Your task to perform on an android device: View the shopping cart on amazon. Search for macbook pro 15 inch on amazon, select the first entry, add it to the cart, then select checkout. Image 0: 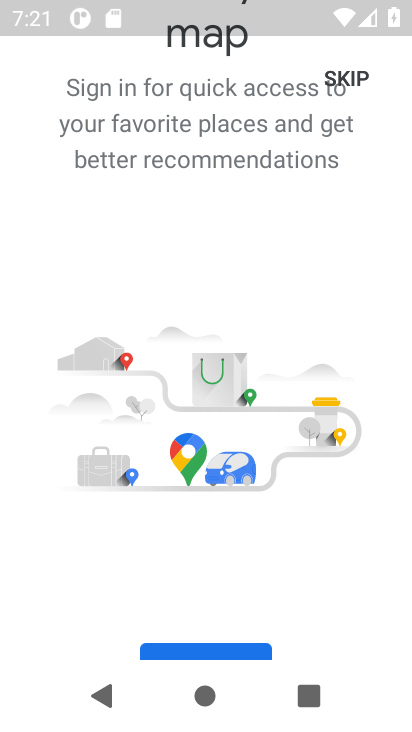
Step 0: press home button
Your task to perform on an android device: View the shopping cart on amazon. Search for macbook pro 15 inch on amazon, select the first entry, add it to the cart, then select checkout. Image 1: 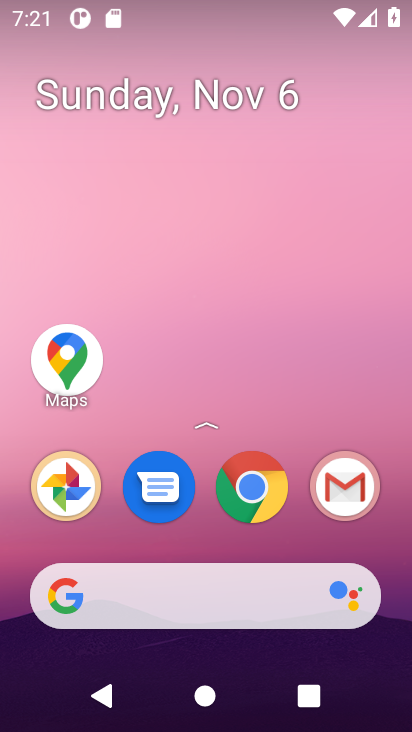
Step 1: click (258, 496)
Your task to perform on an android device: View the shopping cart on amazon. Search for macbook pro 15 inch on amazon, select the first entry, add it to the cart, then select checkout. Image 2: 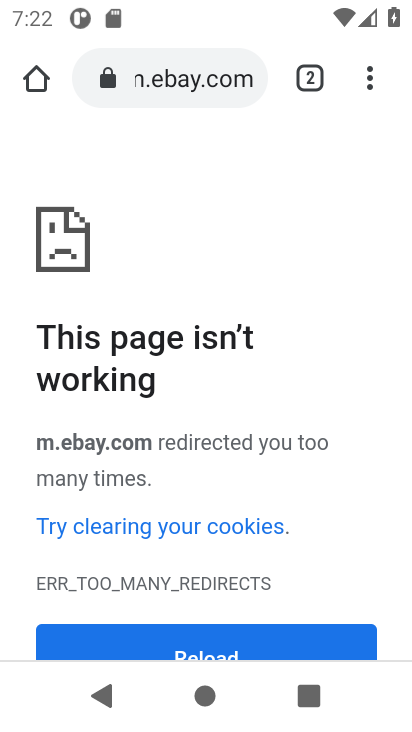
Step 2: click (127, 93)
Your task to perform on an android device: View the shopping cart on amazon. Search for macbook pro 15 inch on amazon, select the first entry, add it to the cart, then select checkout. Image 3: 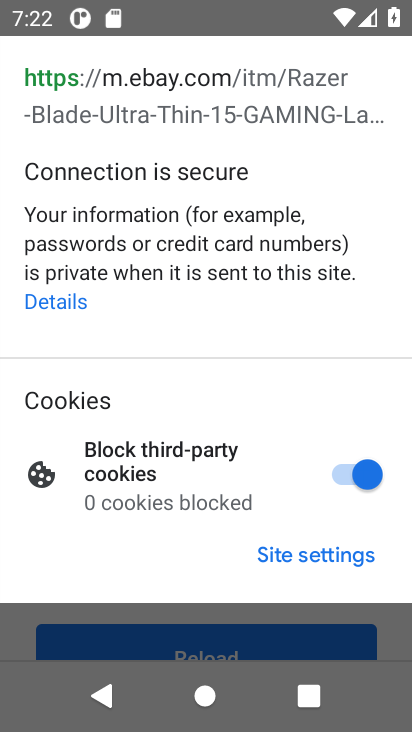
Step 3: press back button
Your task to perform on an android device: View the shopping cart on amazon. Search for macbook pro 15 inch on amazon, select the first entry, add it to the cart, then select checkout. Image 4: 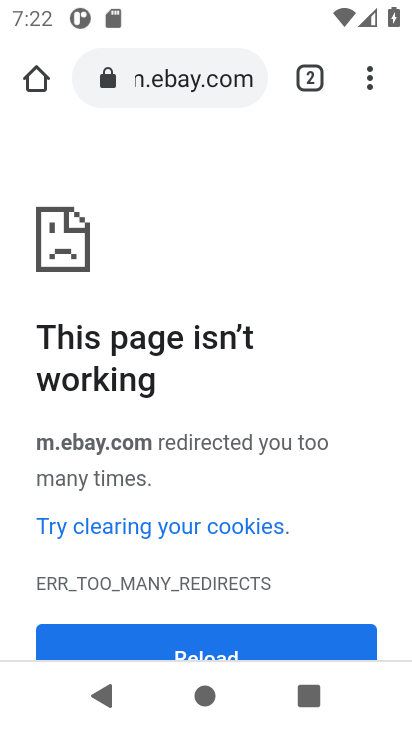
Step 4: click (228, 84)
Your task to perform on an android device: View the shopping cart on amazon. Search for macbook pro 15 inch on amazon, select the first entry, add it to the cart, then select checkout. Image 5: 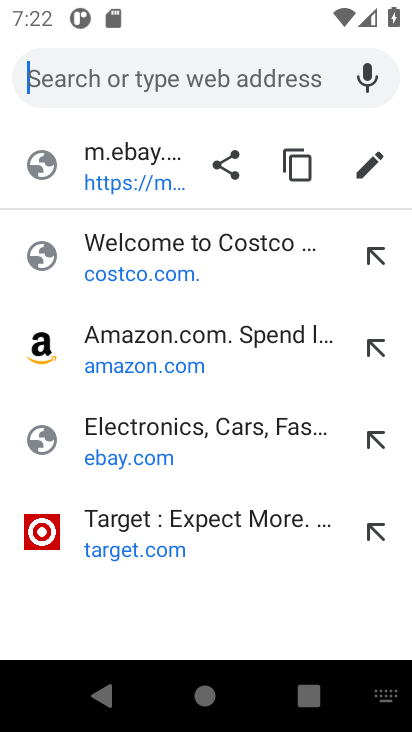
Step 5: type "amazon"
Your task to perform on an android device: View the shopping cart on amazon. Search for macbook pro 15 inch on amazon, select the first entry, add it to the cart, then select checkout. Image 6: 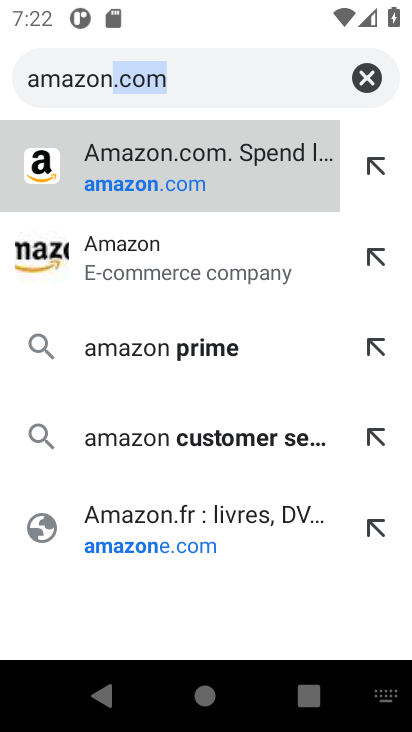
Step 6: click (120, 189)
Your task to perform on an android device: View the shopping cart on amazon. Search for macbook pro 15 inch on amazon, select the first entry, add it to the cart, then select checkout. Image 7: 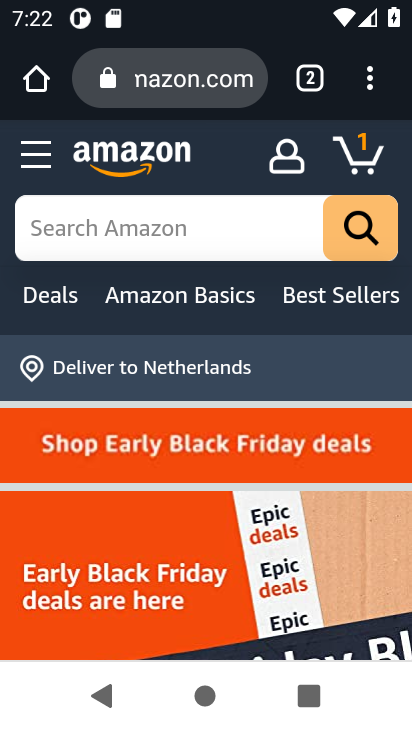
Step 7: click (146, 219)
Your task to perform on an android device: View the shopping cart on amazon. Search for macbook pro 15 inch on amazon, select the first entry, add it to the cart, then select checkout. Image 8: 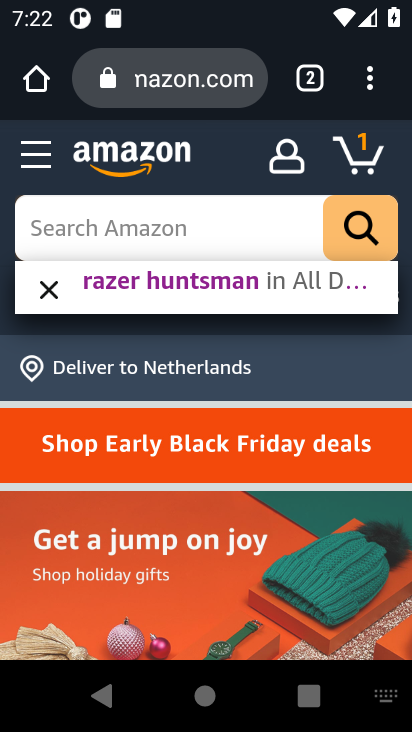
Step 8: click (364, 155)
Your task to perform on an android device: View the shopping cart on amazon. Search for macbook pro 15 inch on amazon, select the first entry, add it to the cart, then select checkout. Image 9: 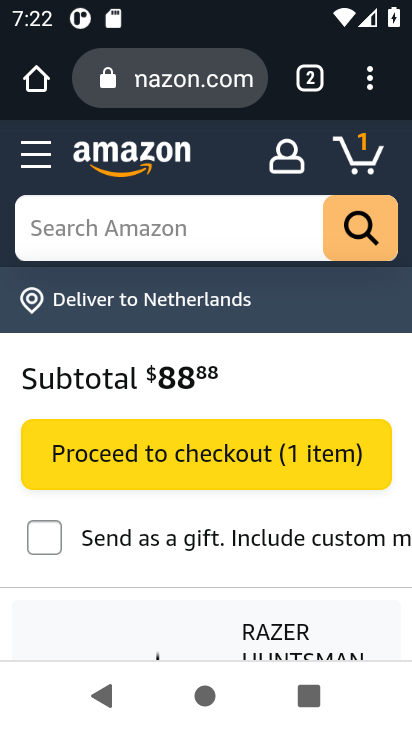
Step 9: drag from (110, 543) to (178, 47)
Your task to perform on an android device: View the shopping cart on amazon. Search for macbook pro 15 inch on amazon, select the first entry, add it to the cart, then select checkout. Image 10: 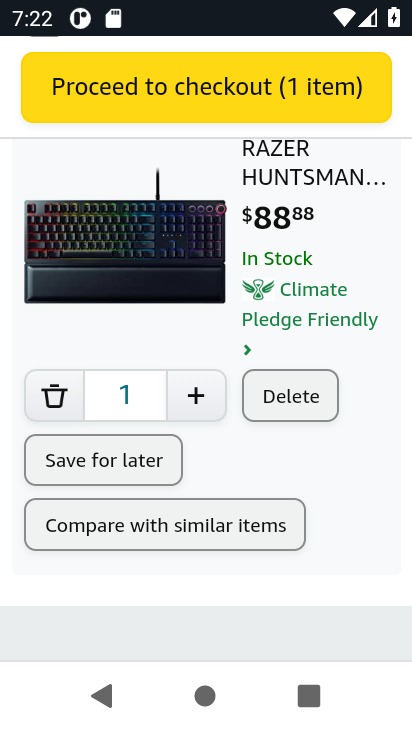
Step 10: press back button
Your task to perform on an android device: View the shopping cart on amazon. Search for macbook pro 15 inch on amazon, select the first entry, add it to the cart, then select checkout. Image 11: 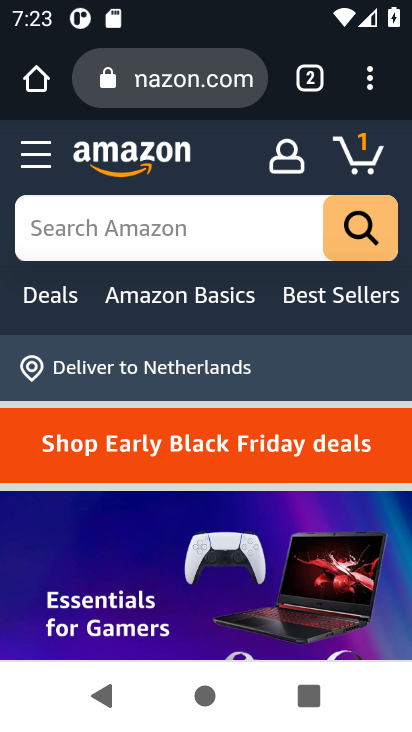
Step 11: click (145, 225)
Your task to perform on an android device: View the shopping cart on amazon. Search for macbook pro 15 inch on amazon, select the first entry, add it to the cart, then select checkout. Image 12: 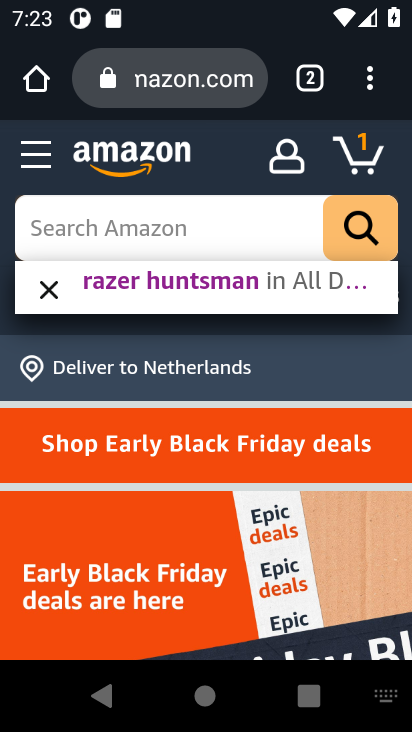
Step 12: drag from (252, 725) to (176, 731)
Your task to perform on an android device: View the shopping cart on amazon. Search for macbook pro 15 inch on amazon, select the first entry, add it to the cart, then select checkout. Image 13: 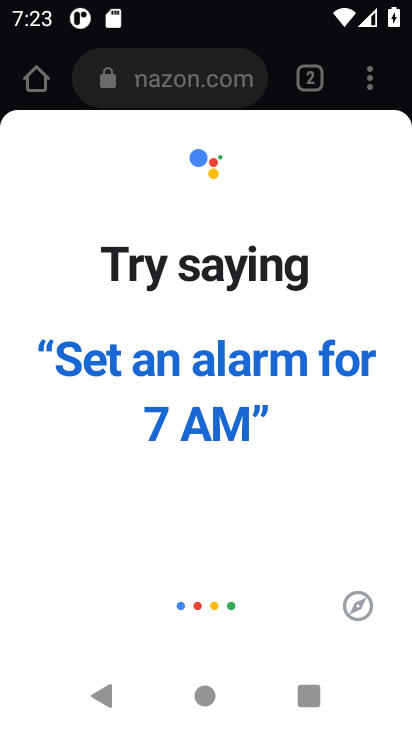
Step 13: click (98, 249)
Your task to perform on an android device: View the shopping cart on amazon. Search for macbook pro 15 inch on amazon, select the first entry, add it to the cart, then select checkout. Image 14: 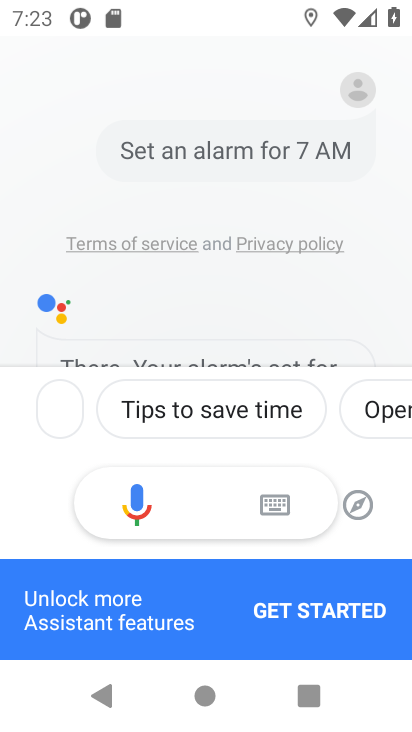
Step 14: press back button
Your task to perform on an android device: View the shopping cart on amazon. Search for macbook pro 15 inch on amazon, select the first entry, add it to the cart, then select checkout. Image 15: 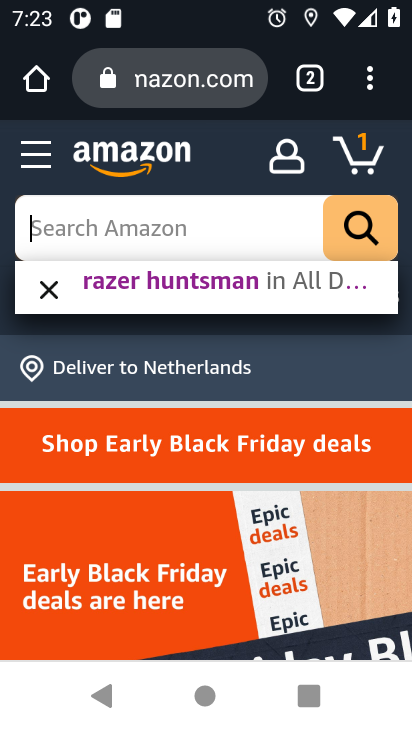
Step 15: type "macbook pro 15 inch "
Your task to perform on an android device: View the shopping cart on amazon. Search for macbook pro 15 inch on amazon, select the first entry, add it to the cart, then select checkout. Image 16: 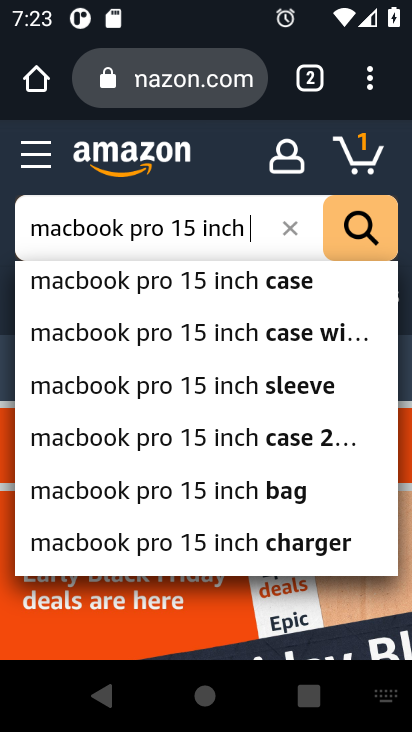
Step 16: click (372, 246)
Your task to perform on an android device: View the shopping cart on amazon. Search for macbook pro 15 inch on amazon, select the first entry, add it to the cart, then select checkout. Image 17: 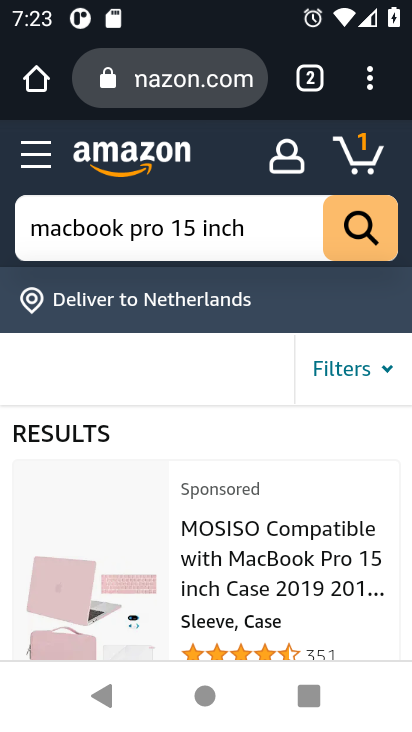
Step 17: click (275, 609)
Your task to perform on an android device: View the shopping cart on amazon. Search for macbook pro 15 inch on amazon, select the first entry, add it to the cart, then select checkout. Image 18: 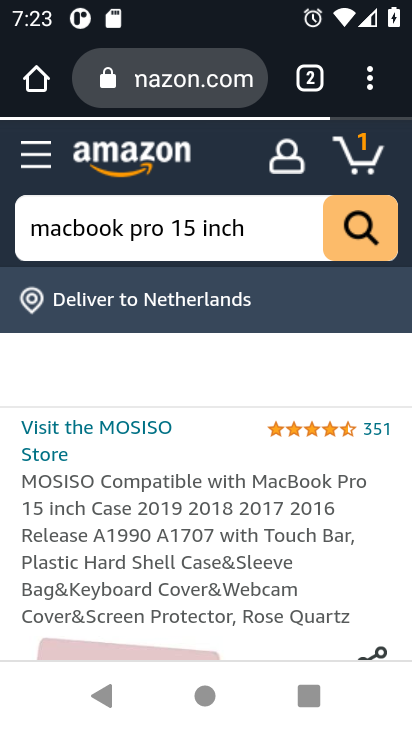
Step 18: press back button
Your task to perform on an android device: View the shopping cart on amazon. Search for macbook pro 15 inch on amazon, select the first entry, add it to the cart, then select checkout. Image 19: 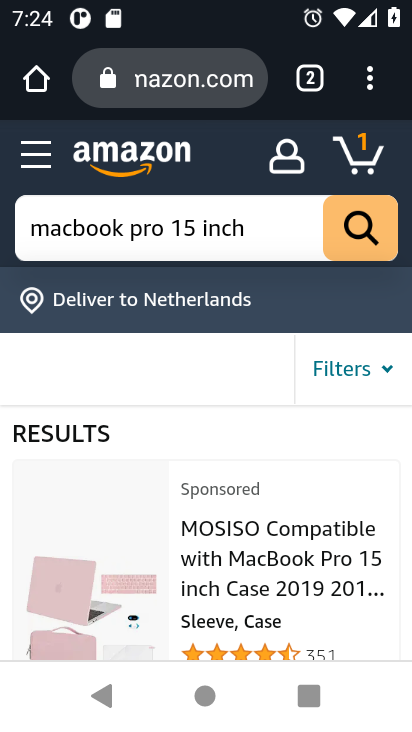
Step 19: drag from (246, 552) to (295, 87)
Your task to perform on an android device: View the shopping cart on amazon. Search for macbook pro 15 inch on amazon, select the first entry, add it to the cart, then select checkout. Image 20: 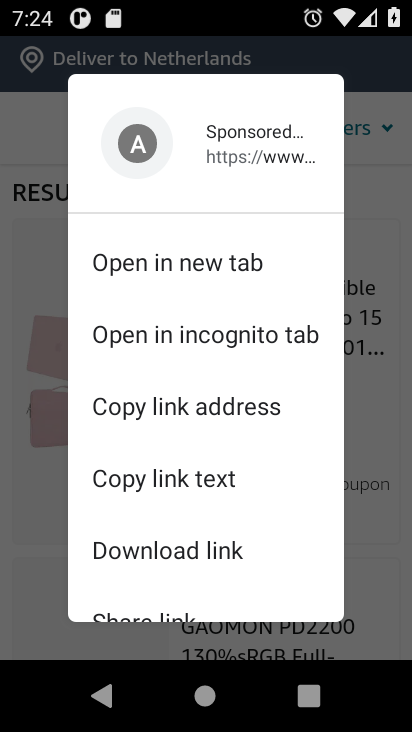
Step 20: click (376, 407)
Your task to perform on an android device: View the shopping cart on amazon. Search for macbook pro 15 inch on amazon, select the first entry, add it to the cart, then select checkout. Image 21: 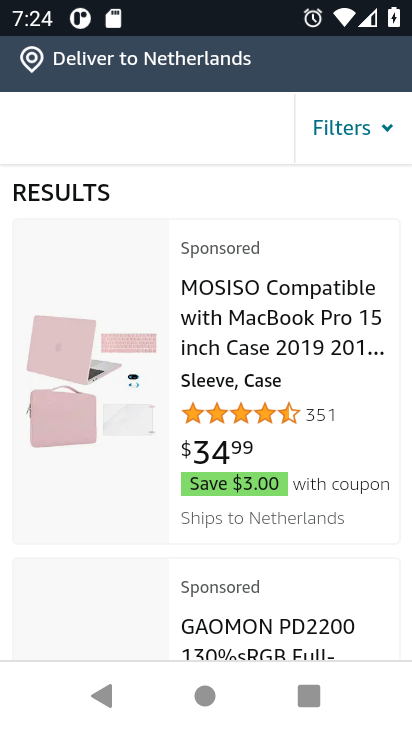
Step 21: drag from (251, 604) to (249, 146)
Your task to perform on an android device: View the shopping cart on amazon. Search for macbook pro 15 inch on amazon, select the first entry, add it to the cart, then select checkout. Image 22: 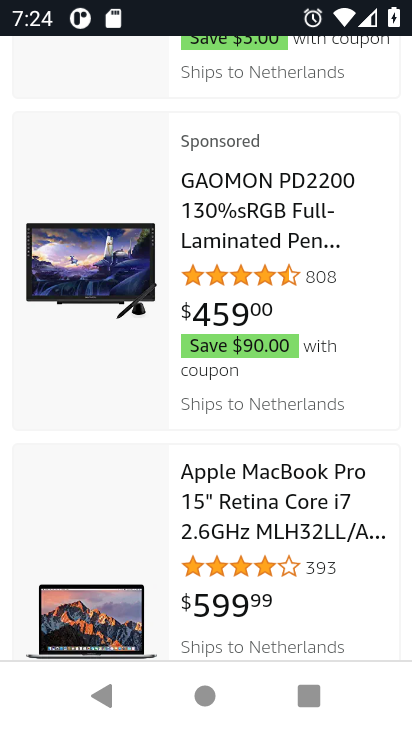
Step 22: drag from (297, 618) to (332, 201)
Your task to perform on an android device: View the shopping cart on amazon. Search for macbook pro 15 inch on amazon, select the first entry, add it to the cart, then select checkout. Image 23: 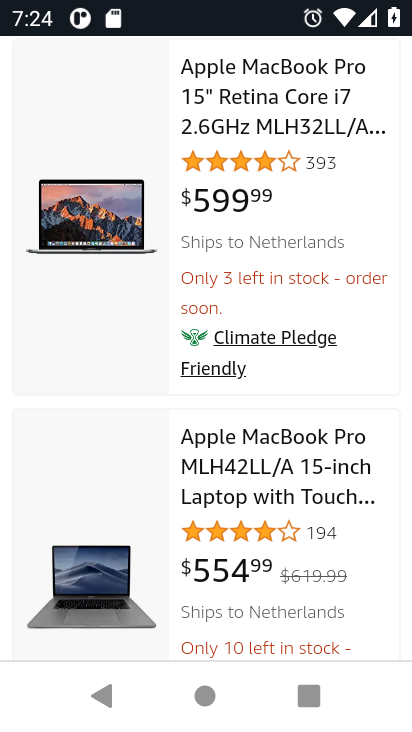
Step 23: click (246, 99)
Your task to perform on an android device: View the shopping cart on amazon. Search for macbook pro 15 inch on amazon, select the first entry, add it to the cart, then select checkout. Image 24: 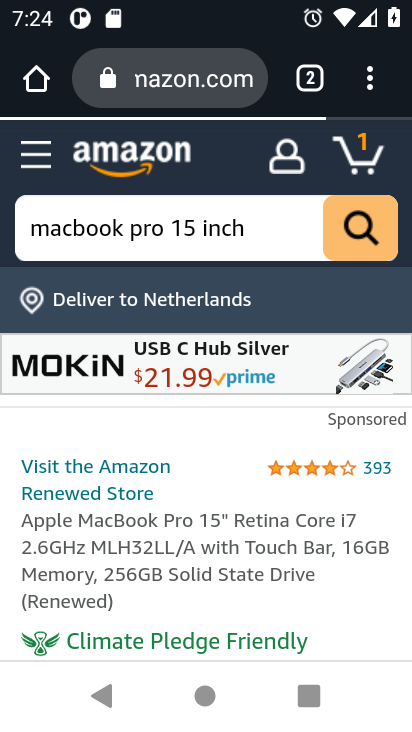
Step 24: drag from (175, 588) to (239, 107)
Your task to perform on an android device: View the shopping cart on amazon. Search for macbook pro 15 inch on amazon, select the first entry, add it to the cart, then select checkout. Image 25: 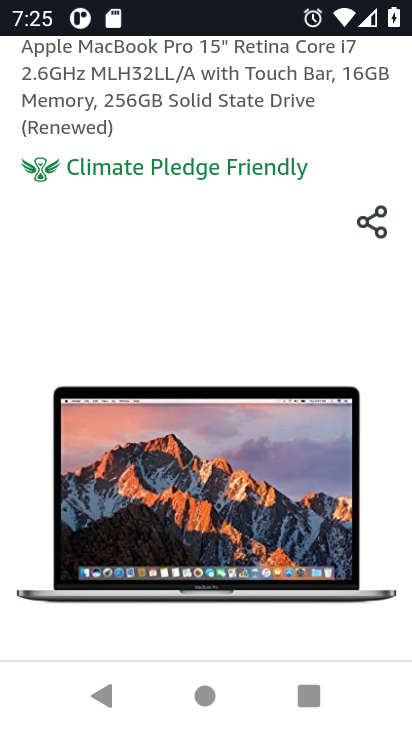
Step 25: drag from (159, 614) to (177, 136)
Your task to perform on an android device: View the shopping cart on amazon. Search for macbook pro 15 inch on amazon, select the first entry, add it to the cart, then select checkout. Image 26: 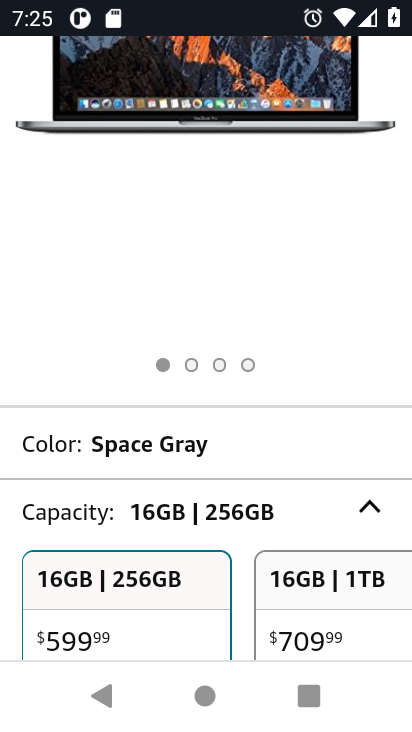
Step 26: drag from (289, 479) to (269, 52)
Your task to perform on an android device: View the shopping cart on amazon. Search for macbook pro 15 inch on amazon, select the first entry, add it to the cart, then select checkout. Image 27: 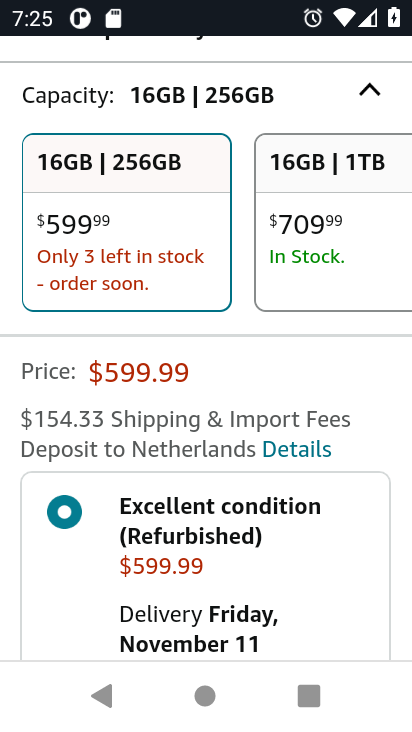
Step 27: drag from (95, 573) to (263, 5)
Your task to perform on an android device: View the shopping cart on amazon. Search for macbook pro 15 inch on amazon, select the first entry, add it to the cart, then select checkout. Image 28: 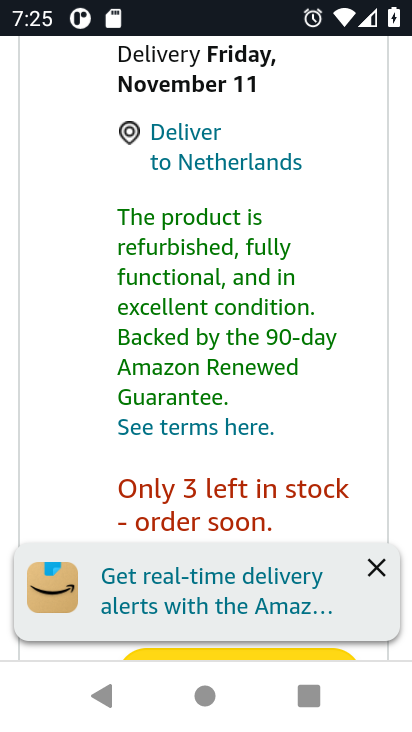
Step 28: drag from (277, 590) to (269, 208)
Your task to perform on an android device: View the shopping cart on amazon. Search for macbook pro 15 inch on amazon, select the first entry, add it to the cart, then select checkout. Image 29: 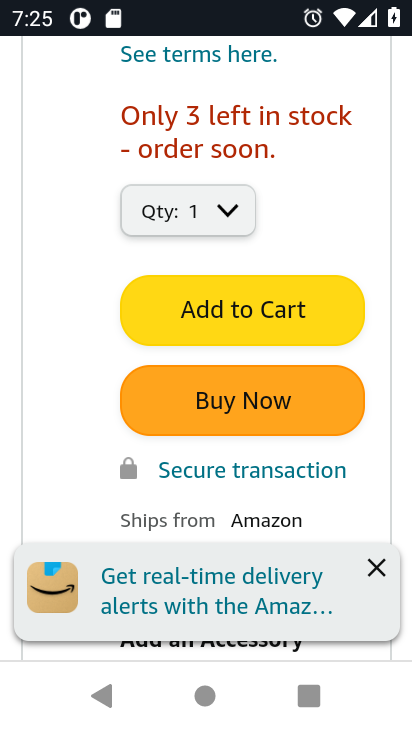
Step 29: click (266, 320)
Your task to perform on an android device: View the shopping cart on amazon. Search for macbook pro 15 inch on amazon, select the first entry, add it to the cart, then select checkout. Image 30: 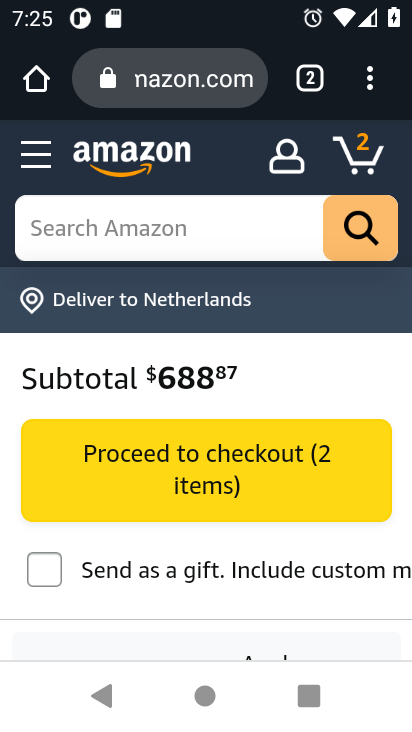
Step 30: click (252, 430)
Your task to perform on an android device: View the shopping cart on amazon. Search for macbook pro 15 inch on amazon, select the first entry, add it to the cart, then select checkout. Image 31: 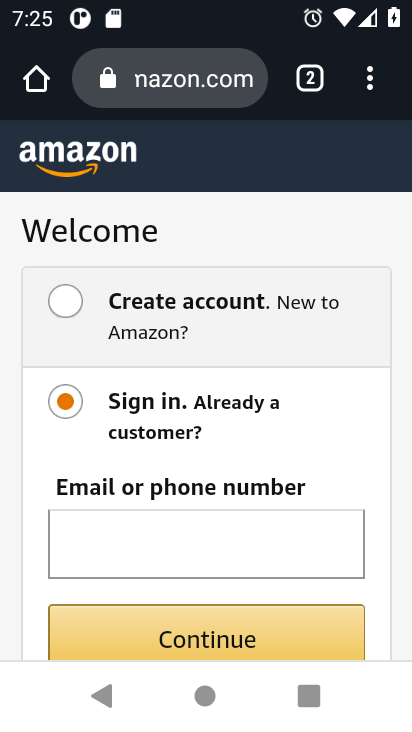
Step 31: task complete